Your task to perform on an android device: Find coffee shops on Maps Image 0: 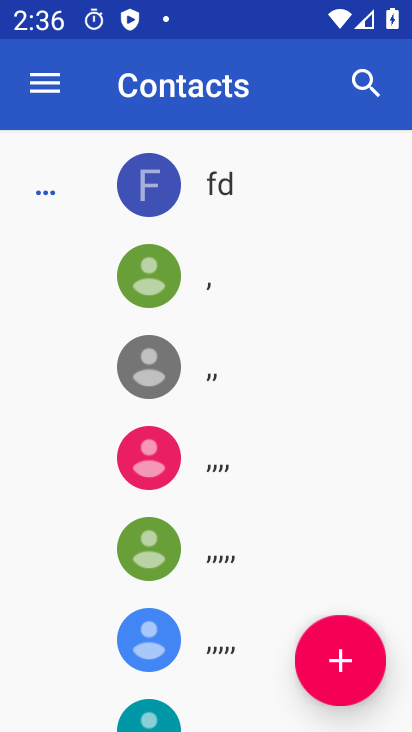
Step 0: press home button
Your task to perform on an android device: Find coffee shops on Maps Image 1: 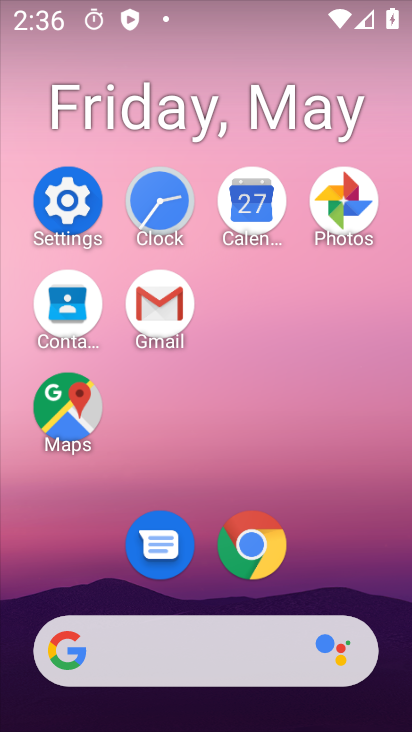
Step 1: click (85, 415)
Your task to perform on an android device: Find coffee shops on Maps Image 2: 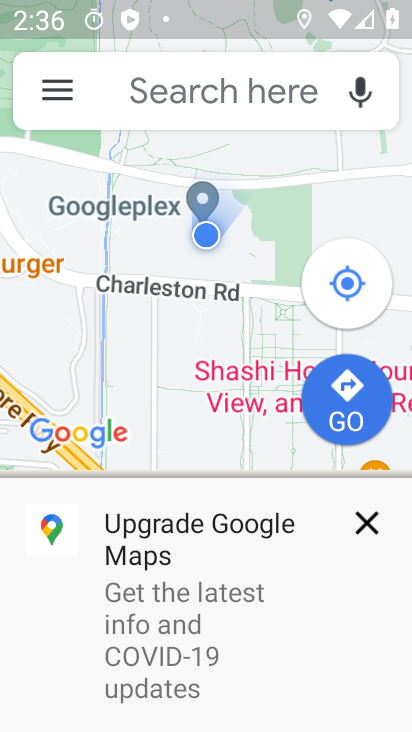
Step 2: click (286, 81)
Your task to perform on an android device: Find coffee shops on Maps Image 3: 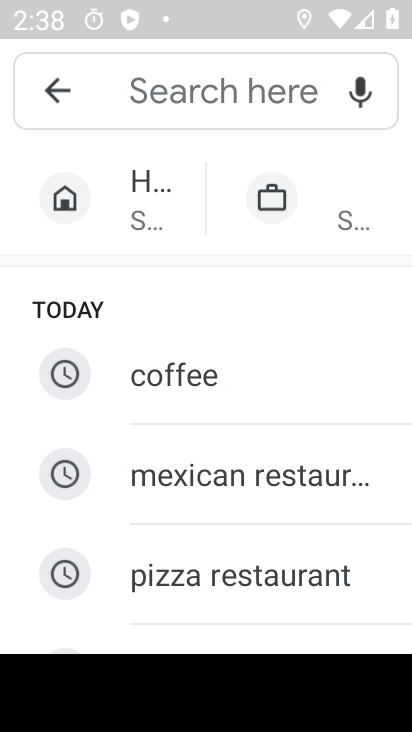
Step 3: click (216, 378)
Your task to perform on an android device: Find coffee shops on Maps Image 4: 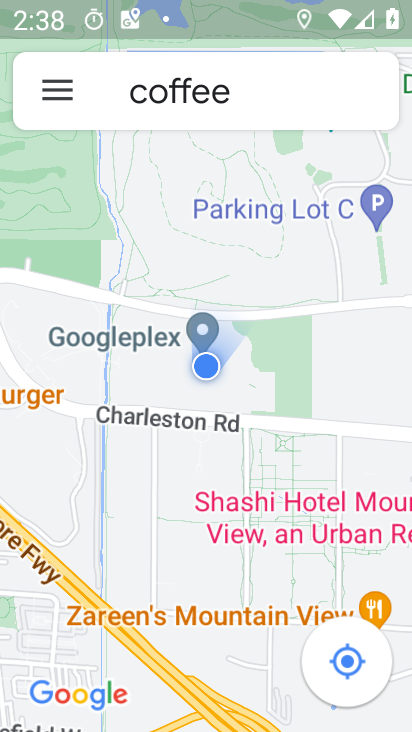
Step 4: task complete